Your task to perform on an android device: all mails in gmail Image 0: 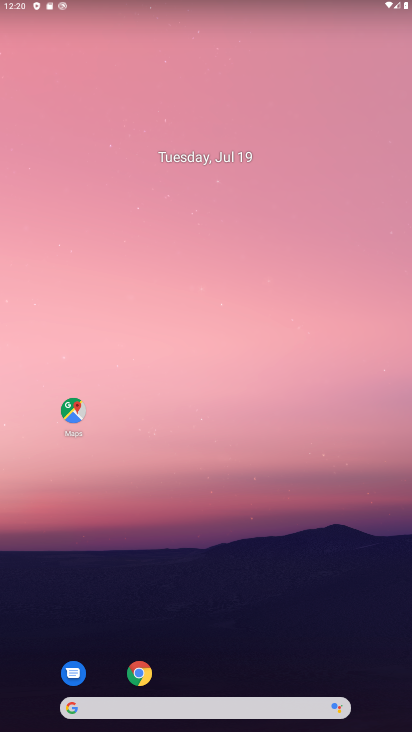
Step 0: drag from (278, 415) to (303, 187)
Your task to perform on an android device: all mails in gmail Image 1: 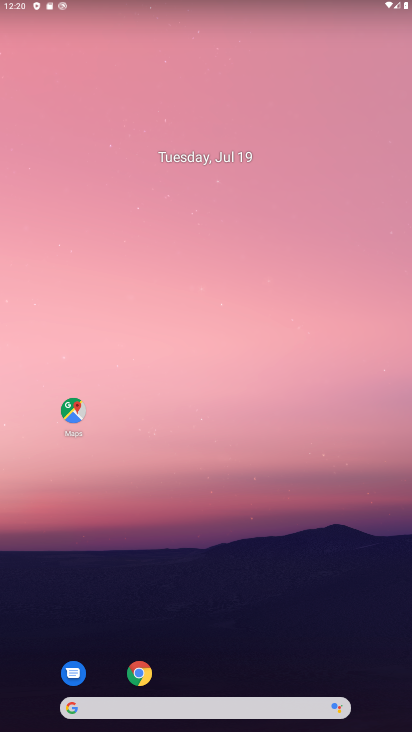
Step 1: drag from (216, 661) to (264, 108)
Your task to perform on an android device: all mails in gmail Image 2: 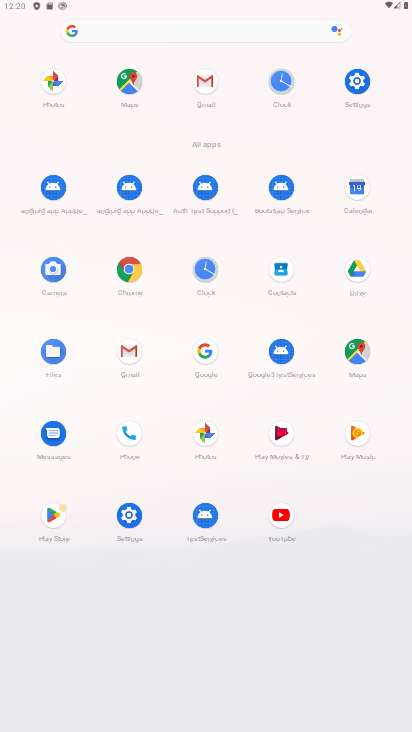
Step 2: click (133, 363)
Your task to perform on an android device: all mails in gmail Image 3: 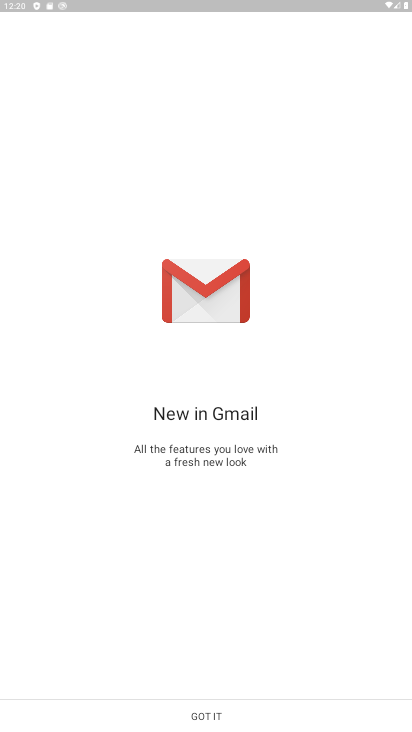
Step 3: click (217, 709)
Your task to perform on an android device: all mails in gmail Image 4: 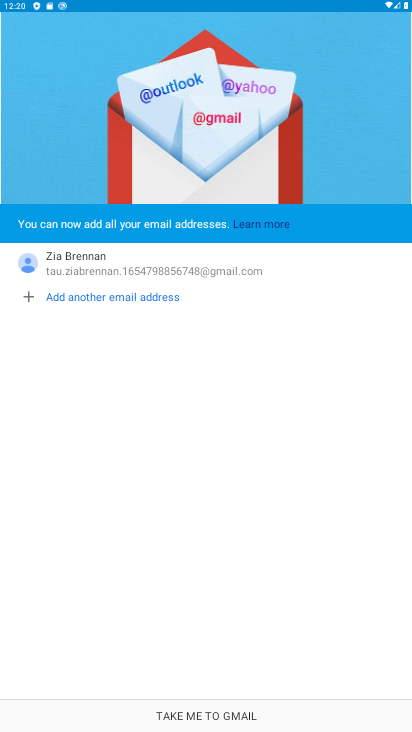
Step 4: click (215, 719)
Your task to perform on an android device: all mails in gmail Image 5: 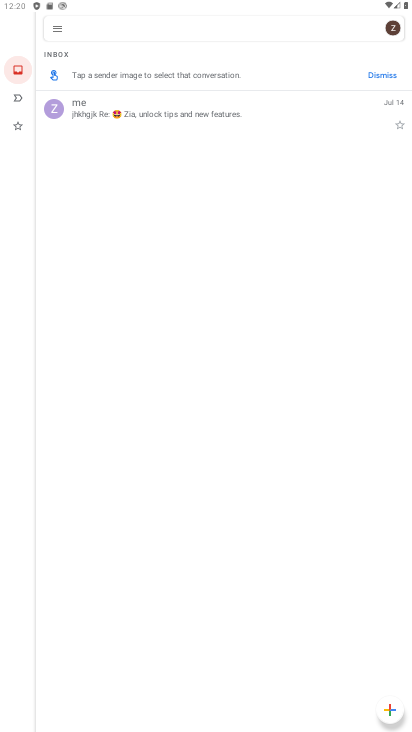
Step 5: click (64, 34)
Your task to perform on an android device: all mails in gmail Image 6: 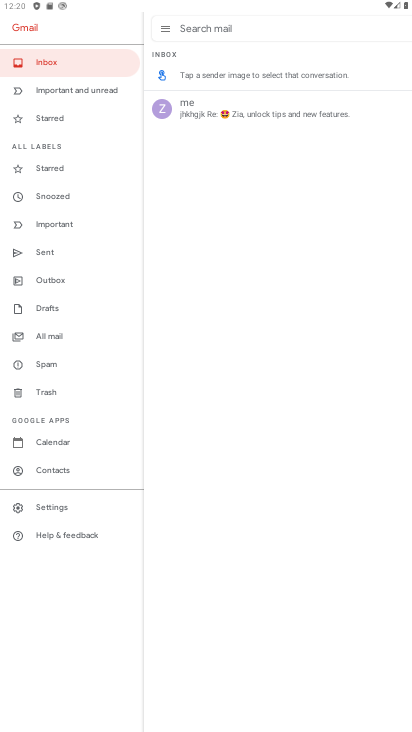
Step 6: click (68, 337)
Your task to perform on an android device: all mails in gmail Image 7: 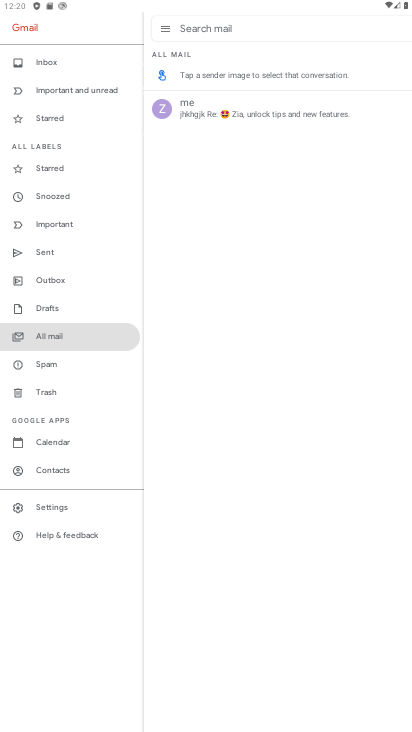
Step 7: task complete